Your task to perform on an android device: toggle javascript in the chrome app Image 0: 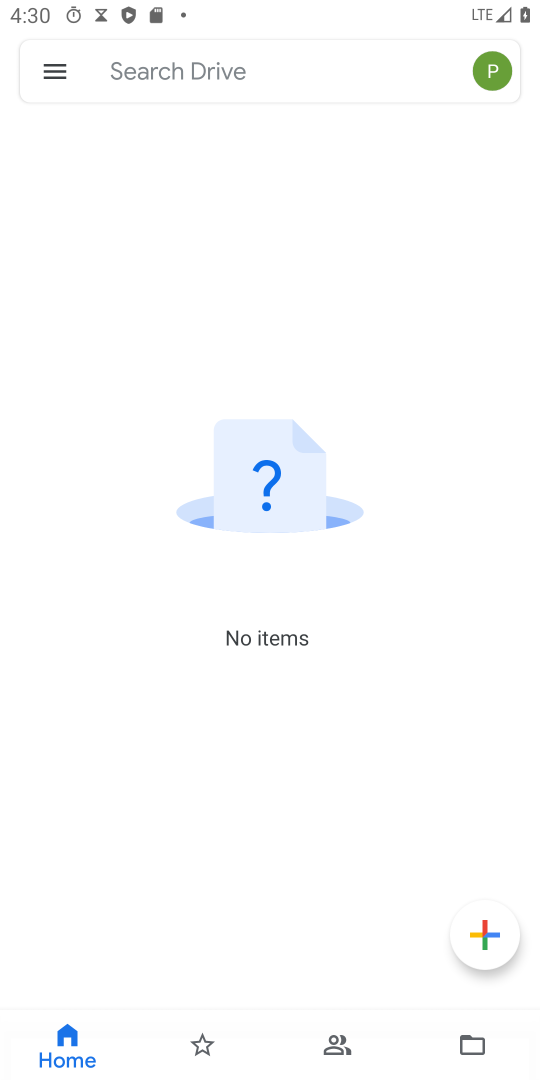
Step 0: press home button
Your task to perform on an android device: toggle javascript in the chrome app Image 1: 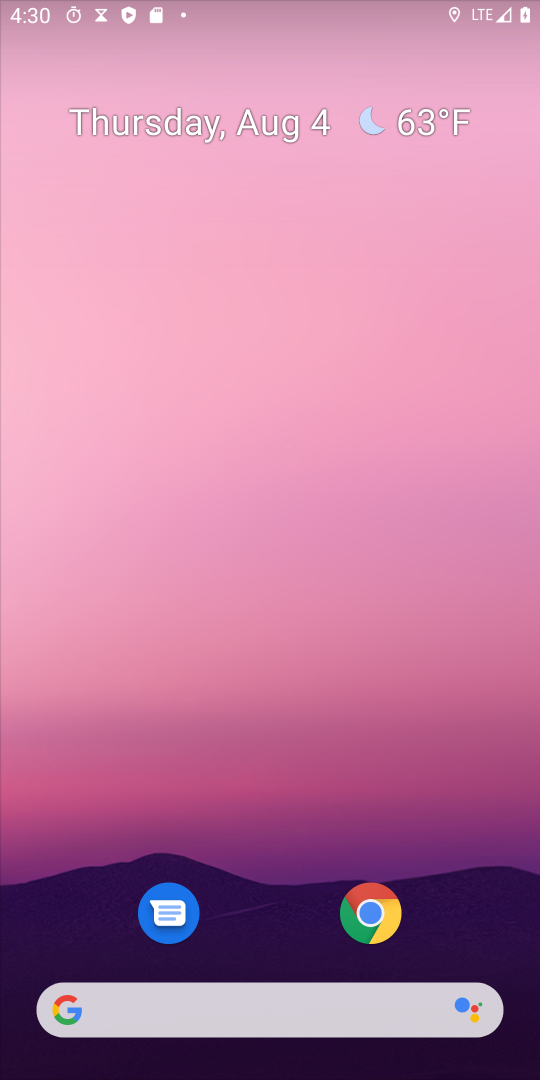
Step 1: drag from (376, 1061) to (418, 254)
Your task to perform on an android device: toggle javascript in the chrome app Image 2: 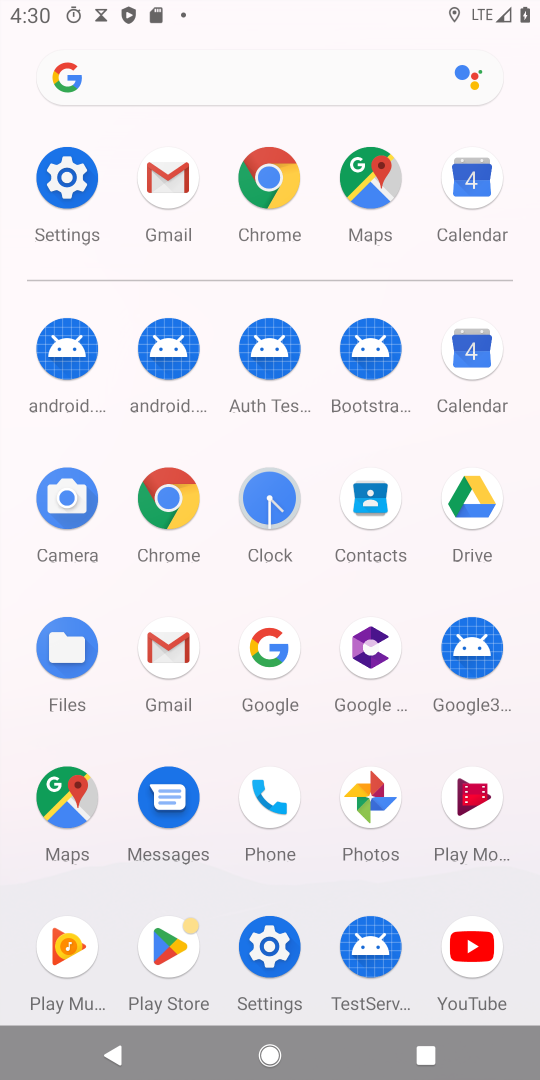
Step 2: click (158, 468)
Your task to perform on an android device: toggle javascript in the chrome app Image 3: 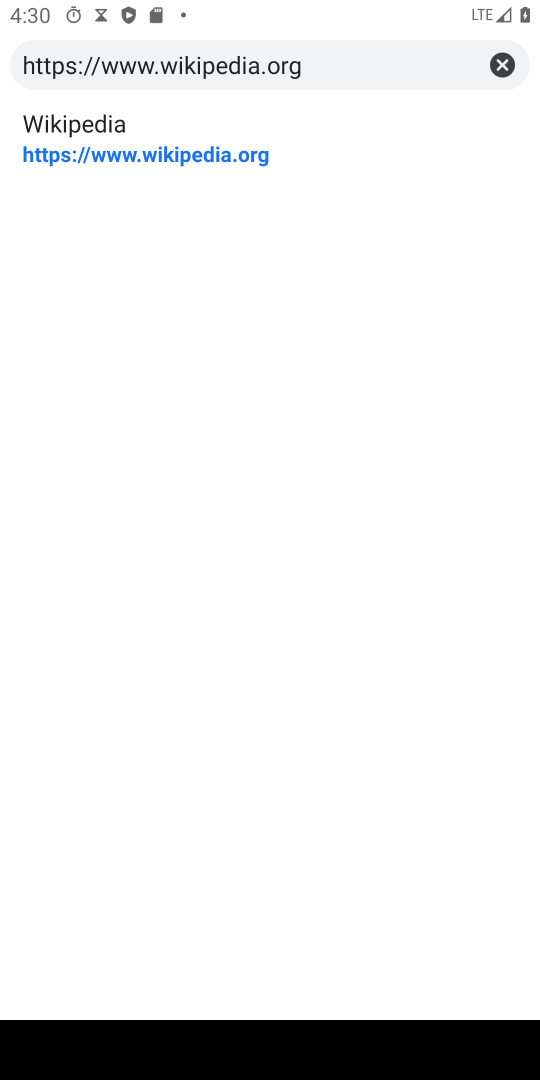
Step 3: press back button
Your task to perform on an android device: toggle javascript in the chrome app Image 4: 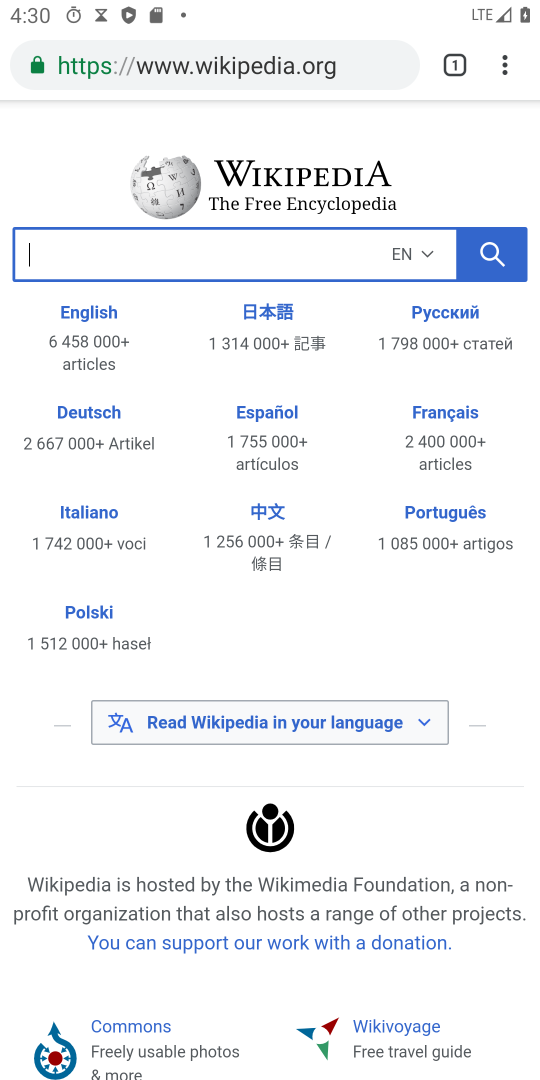
Step 4: drag from (504, 65) to (323, 720)
Your task to perform on an android device: toggle javascript in the chrome app Image 5: 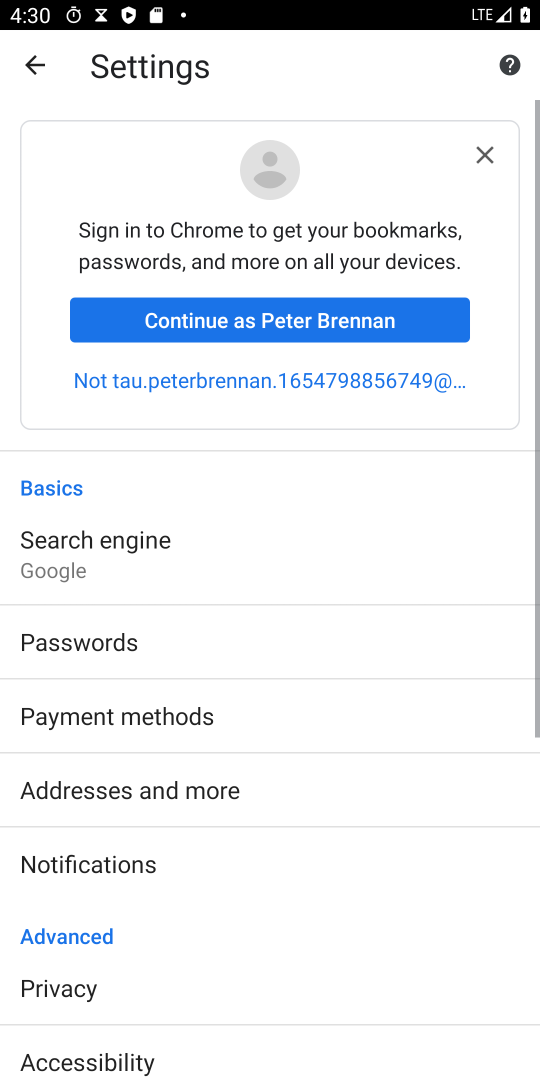
Step 5: drag from (265, 891) to (306, 175)
Your task to perform on an android device: toggle javascript in the chrome app Image 6: 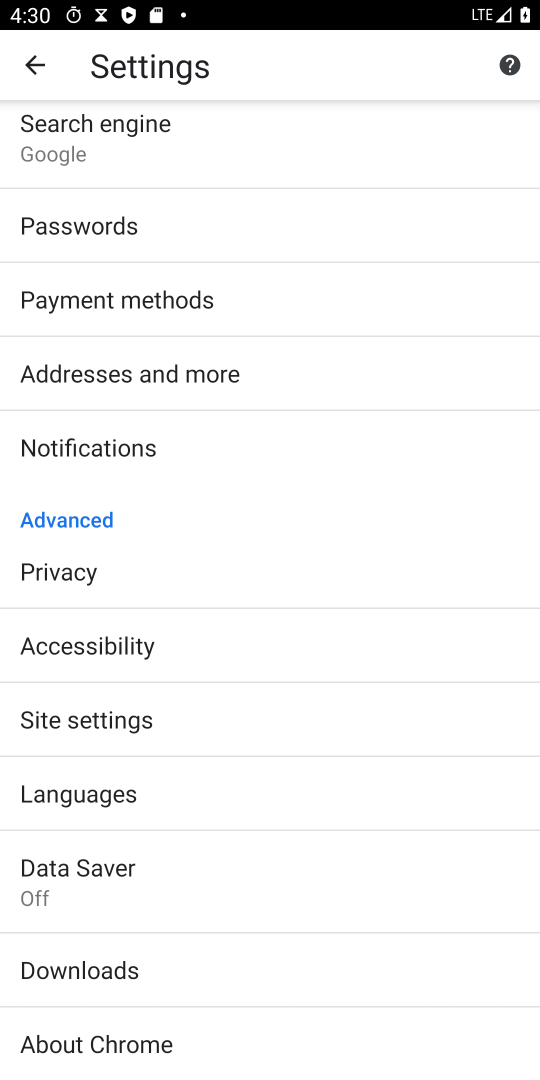
Step 6: click (120, 730)
Your task to perform on an android device: toggle javascript in the chrome app Image 7: 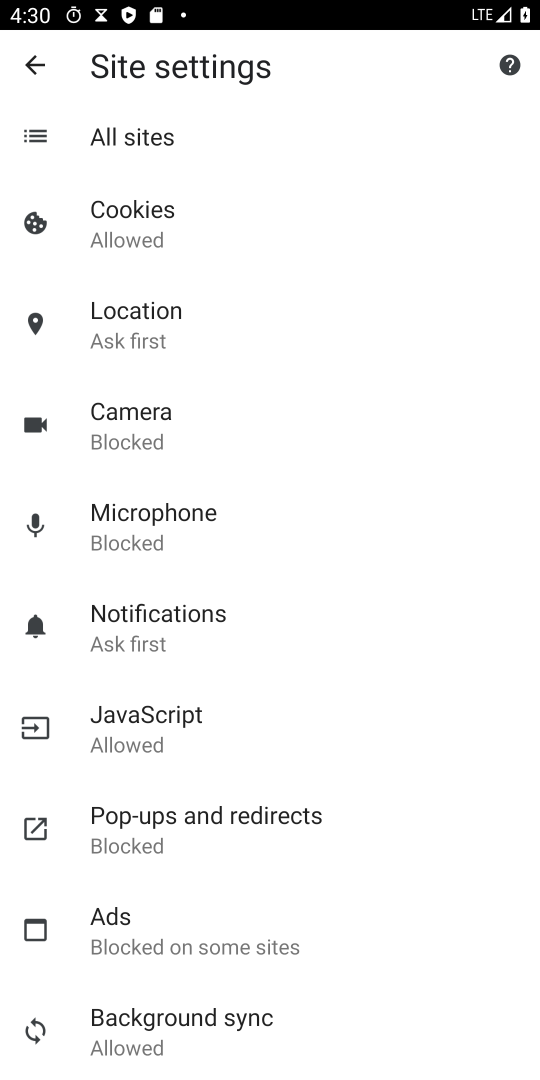
Step 7: click (198, 728)
Your task to perform on an android device: toggle javascript in the chrome app Image 8: 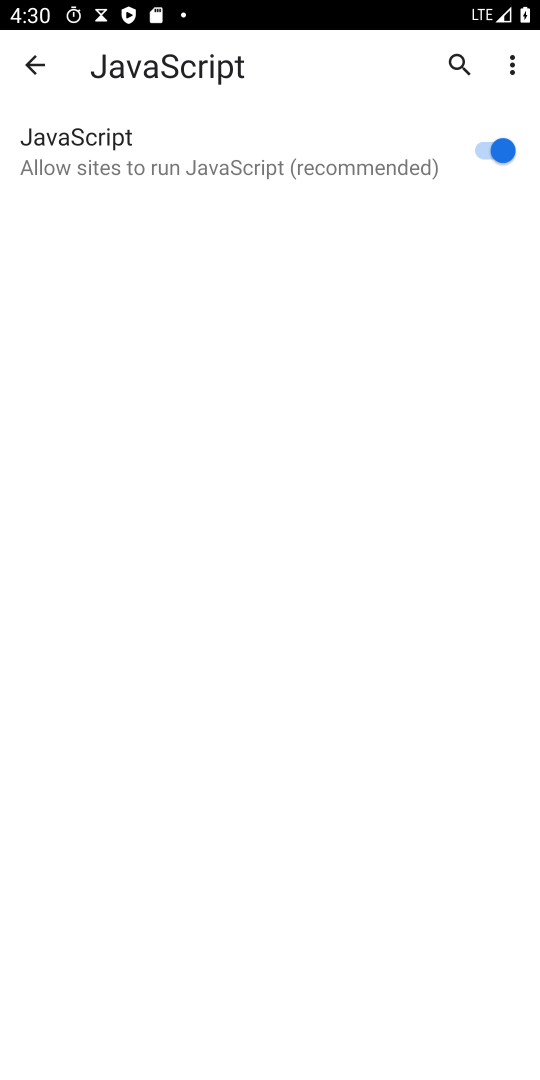
Step 8: click (501, 140)
Your task to perform on an android device: toggle javascript in the chrome app Image 9: 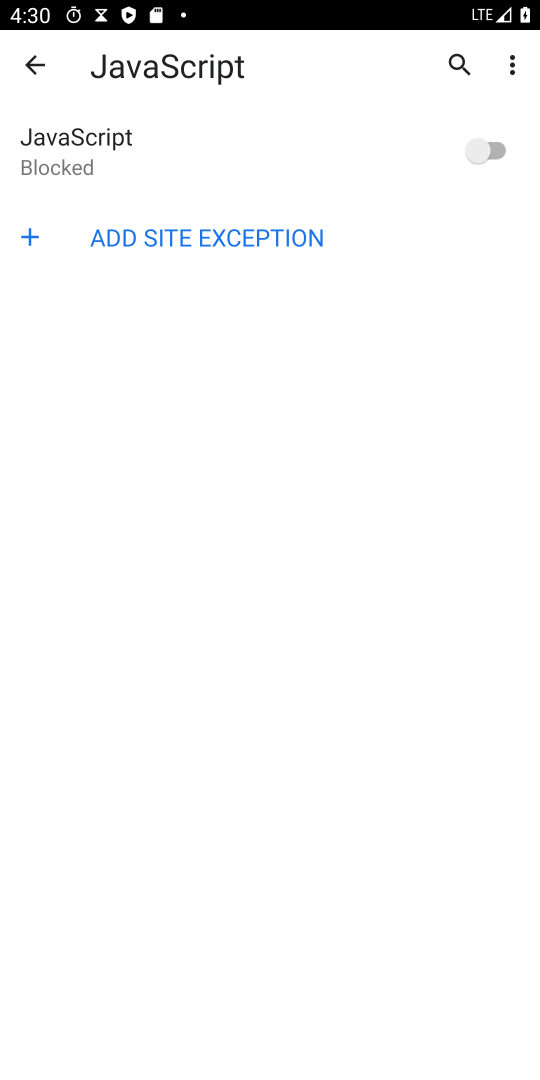
Step 9: task complete